Your task to perform on an android device: set default search engine in the chrome app Image 0: 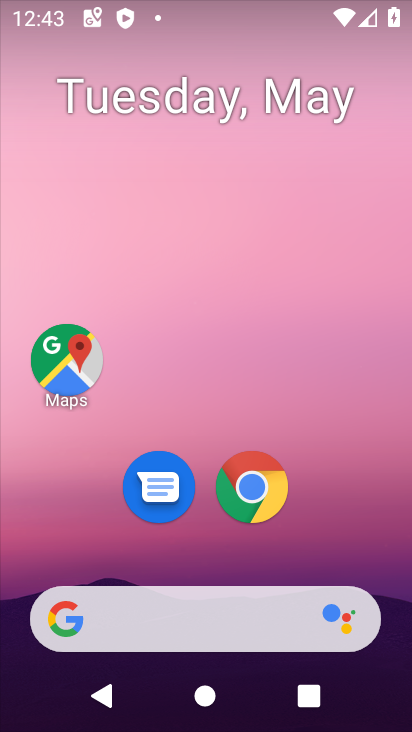
Step 0: click (253, 486)
Your task to perform on an android device: set default search engine in the chrome app Image 1: 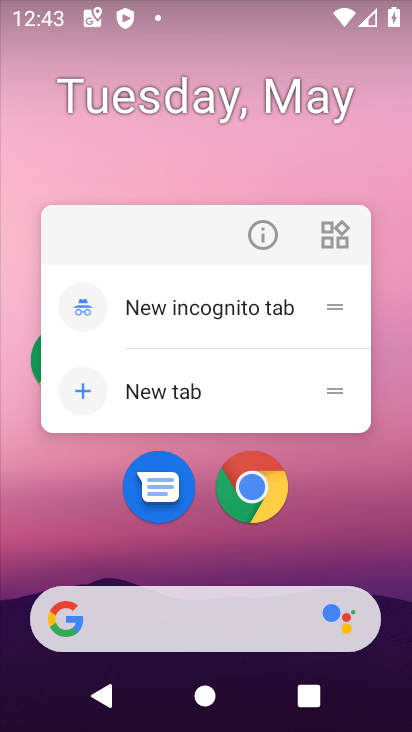
Step 1: click (261, 476)
Your task to perform on an android device: set default search engine in the chrome app Image 2: 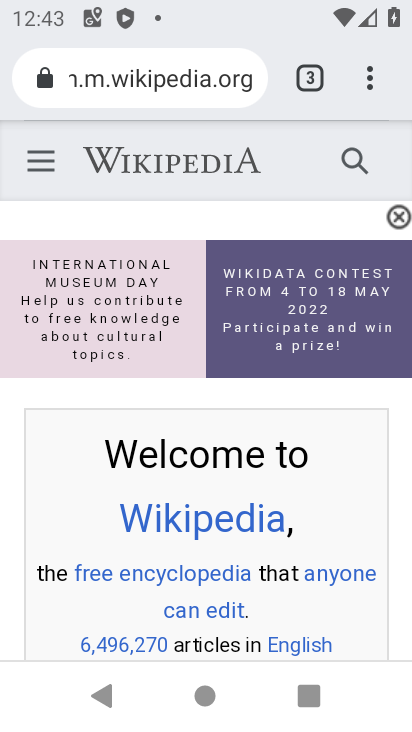
Step 2: click (371, 65)
Your task to perform on an android device: set default search engine in the chrome app Image 3: 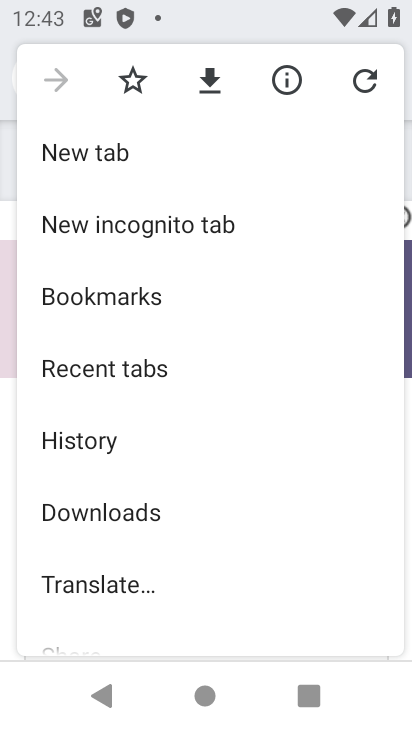
Step 3: drag from (177, 566) to (197, 207)
Your task to perform on an android device: set default search engine in the chrome app Image 4: 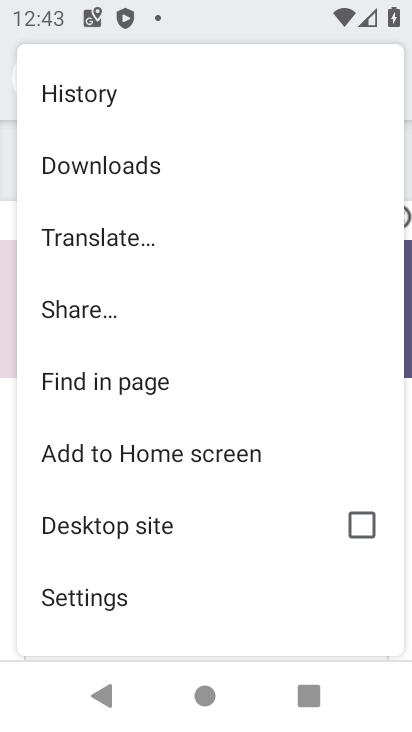
Step 4: click (111, 600)
Your task to perform on an android device: set default search engine in the chrome app Image 5: 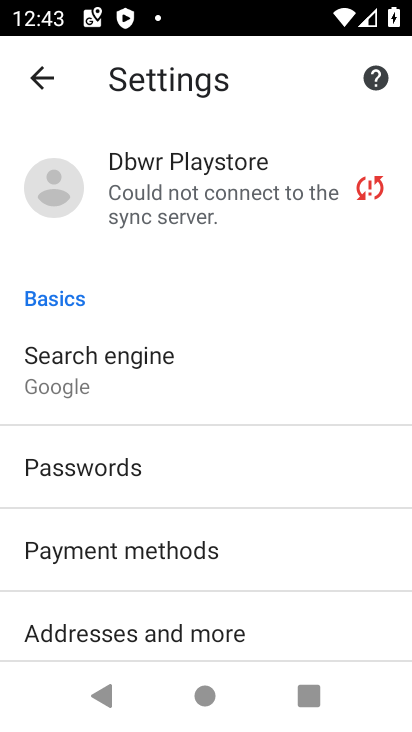
Step 5: drag from (252, 593) to (241, 247)
Your task to perform on an android device: set default search engine in the chrome app Image 6: 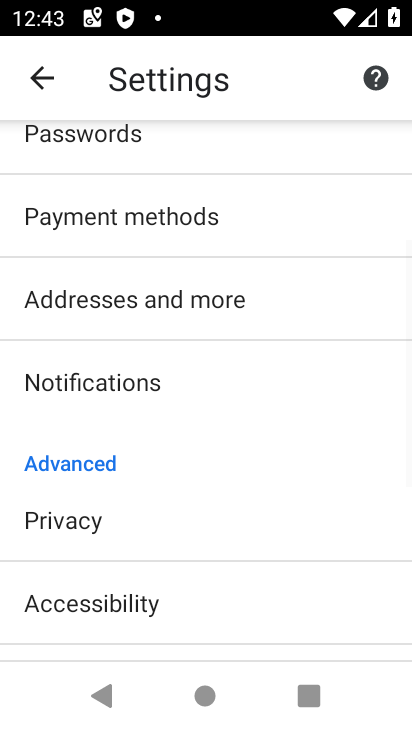
Step 6: drag from (243, 238) to (253, 573)
Your task to perform on an android device: set default search engine in the chrome app Image 7: 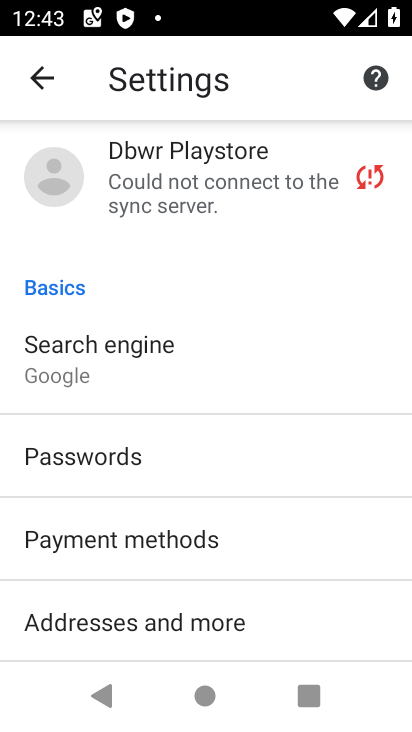
Step 7: click (128, 362)
Your task to perform on an android device: set default search engine in the chrome app Image 8: 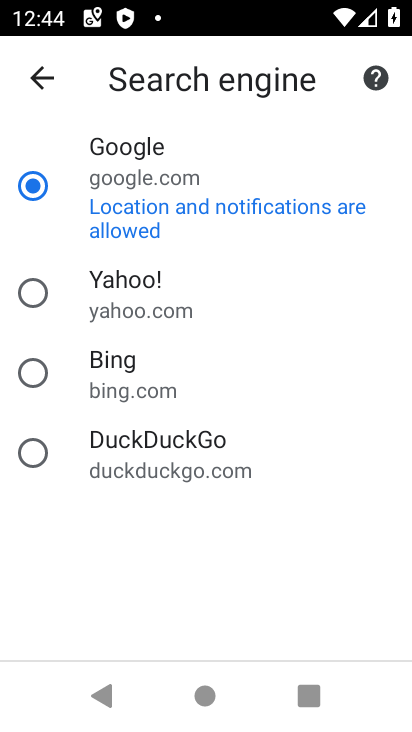
Step 8: task complete